Your task to perform on an android device: Open Chrome and go to settings Image 0: 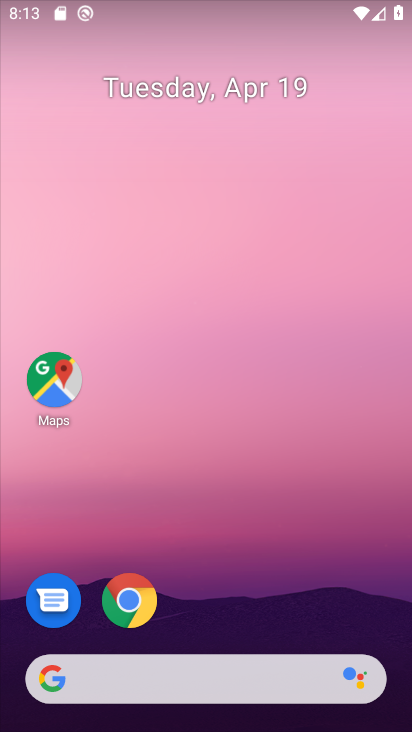
Step 0: drag from (363, 599) to (359, 134)
Your task to perform on an android device: Open Chrome and go to settings Image 1: 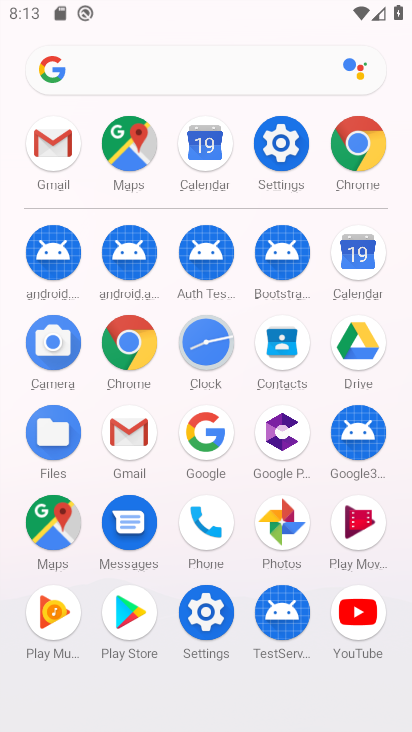
Step 1: click (366, 151)
Your task to perform on an android device: Open Chrome and go to settings Image 2: 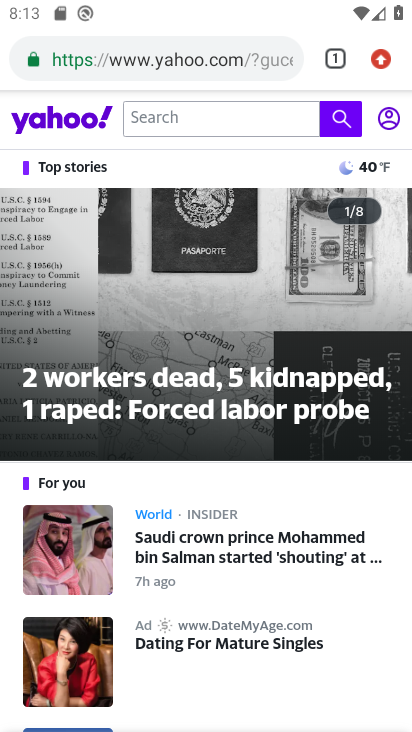
Step 2: click (384, 57)
Your task to perform on an android device: Open Chrome and go to settings Image 3: 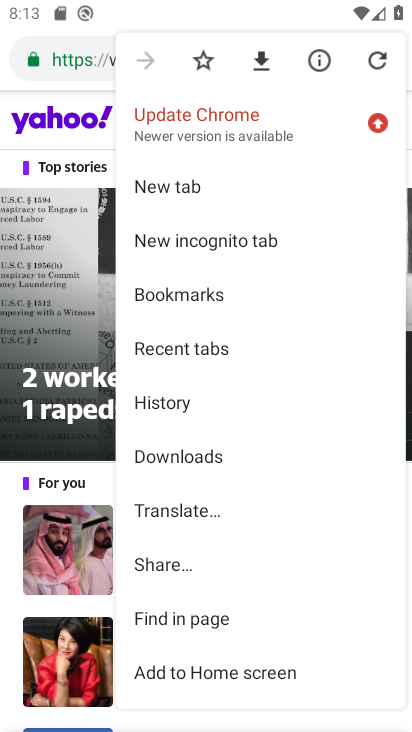
Step 3: drag from (347, 624) to (351, 361)
Your task to perform on an android device: Open Chrome and go to settings Image 4: 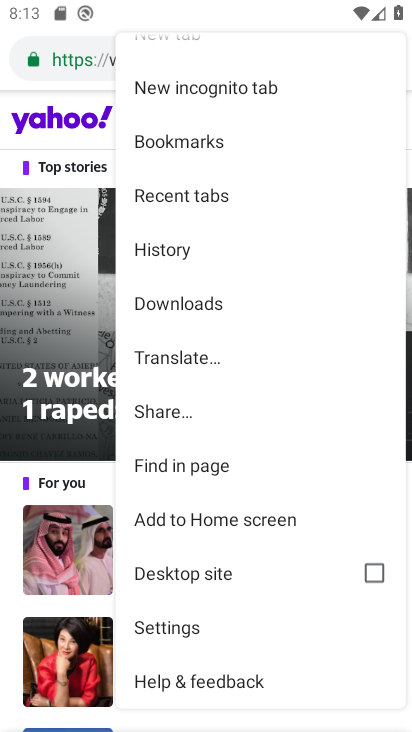
Step 4: click (182, 628)
Your task to perform on an android device: Open Chrome and go to settings Image 5: 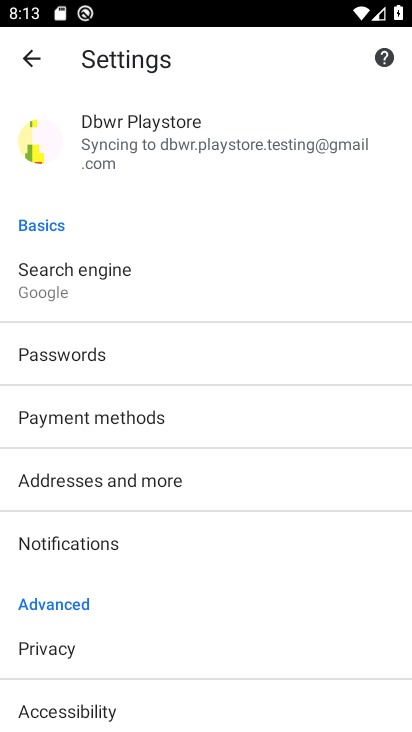
Step 5: task complete